Your task to perform on an android device: Search for Mexican restaurants on Maps Image 0: 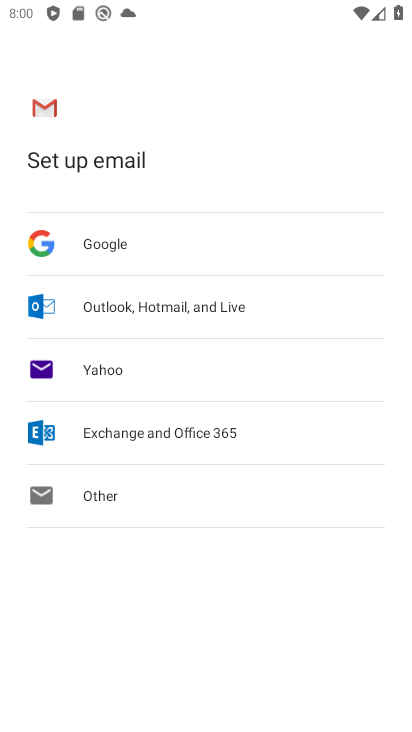
Step 0: press home button
Your task to perform on an android device: Search for Mexican restaurants on Maps Image 1: 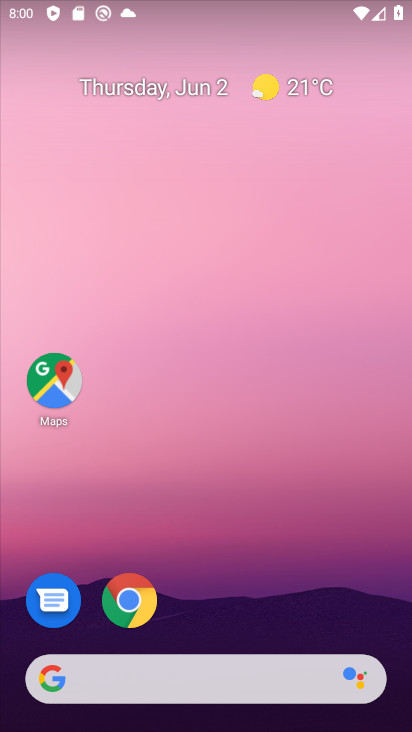
Step 1: drag from (367, 585) to (348, 259)
Your task to perform on an android device: Search for Mexican restaurants on Maps Image 2: 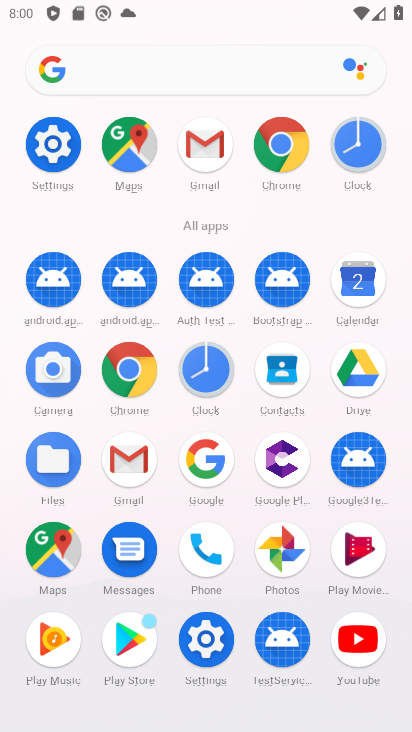
Step 2: click (63, 557)
Your task to perform on an android device: Search for Mexican restaurants on Maps Image 3: 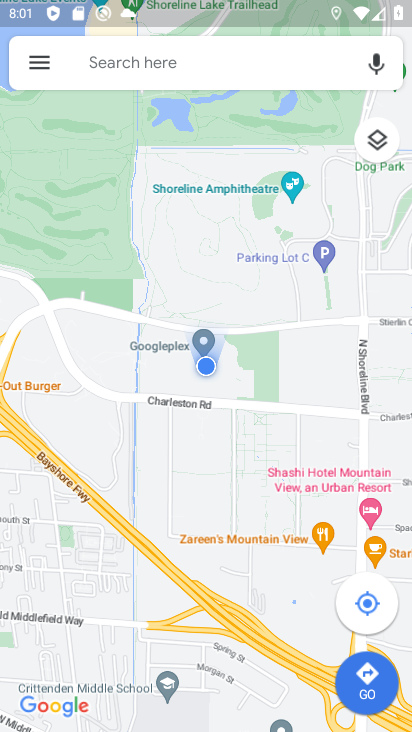
Step 3: click (168, 57)
Your task to perform on an android device: Search for Mexican restaurants on Maps Image 4: 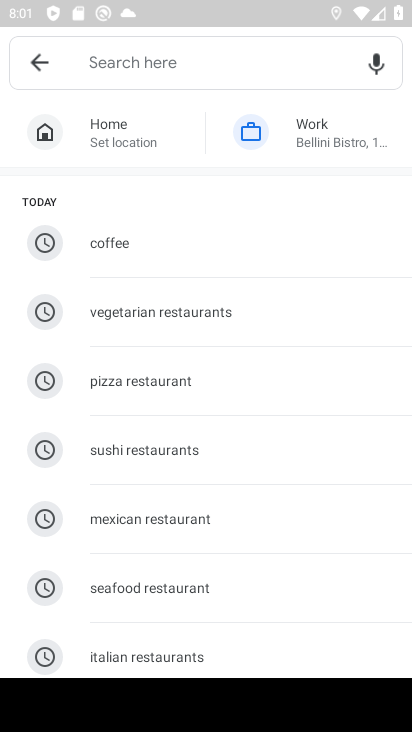
Step 4: type "mexcian restaurants"
Your task to perform on an android device: Search for Mexican restaurants on Maps Image 5: 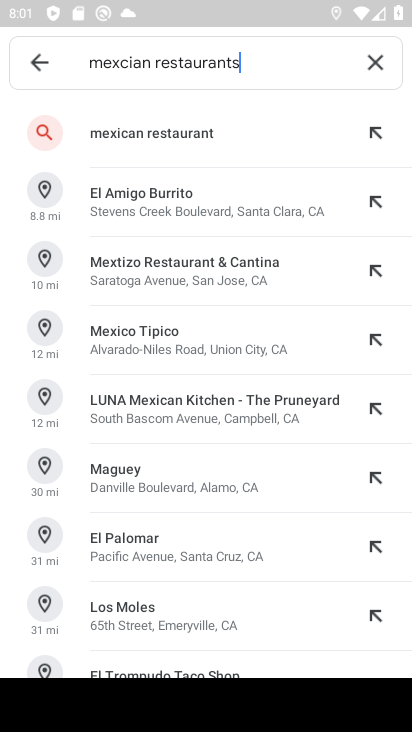
Step 5: click (226, 138)
Your task to perform on an android device: Search for Mexican restaurants on Maps Image 6: 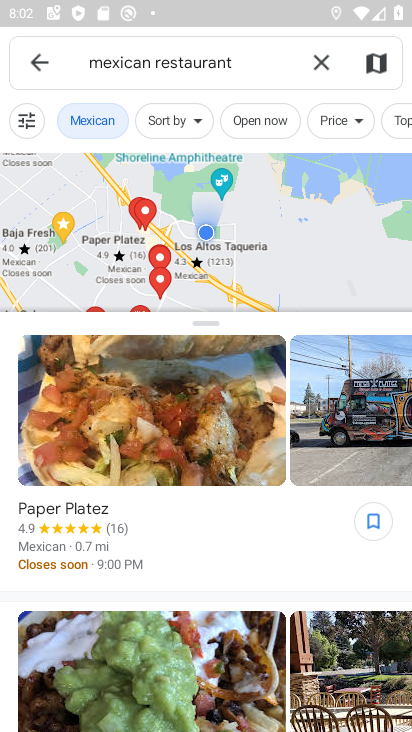
Step 6: task complete